Your task to perform on an android device: uninstall "Pandora - Music & Podcasts" Image 0: 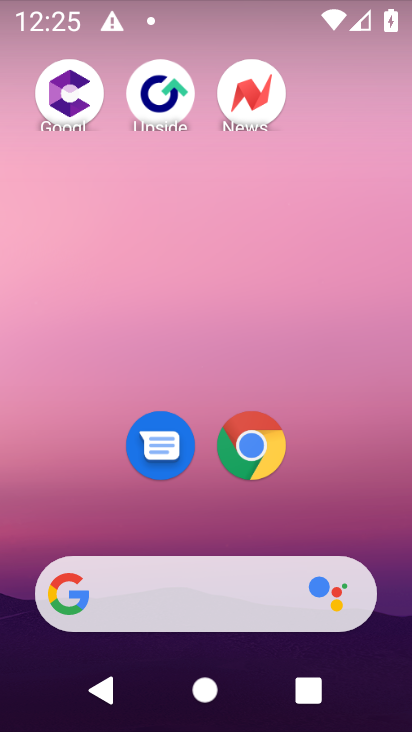
Step 0: drag from (386, 498) to (358, 166)
Your task to perform on an android device: uninstall "Pandora - Music & Podcasts" Image 1: 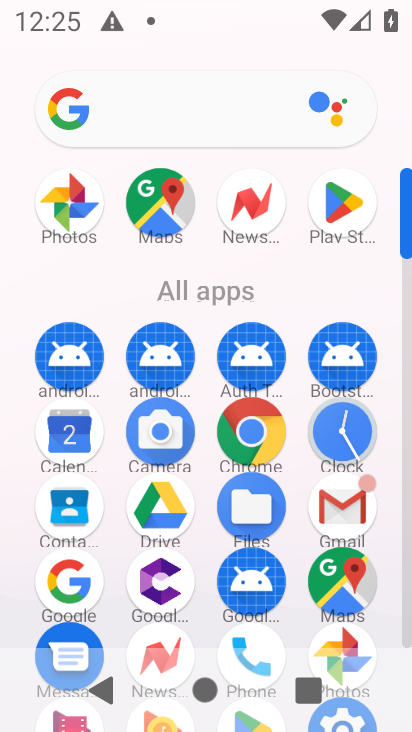
Step 1: click (324, 227)
Your task to perform on an android device: uninstall "Pandora - Music & Podcasts" Image 2: 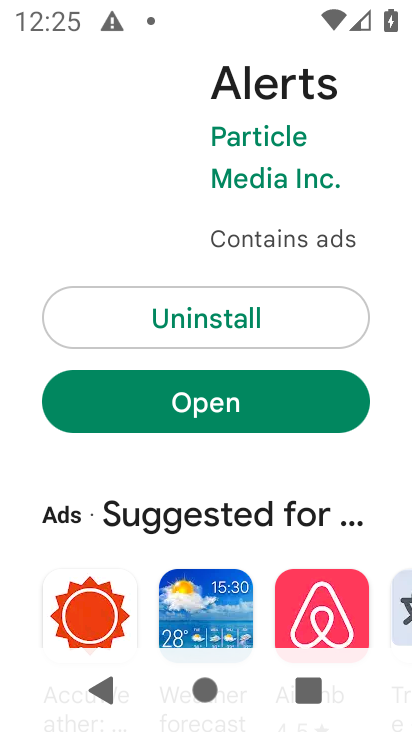
Step 2: drag from (356, 142) to (351, 668)
Your task to perform on an android device: uninstall "Pandora - Music & Podcasts" Image 3: 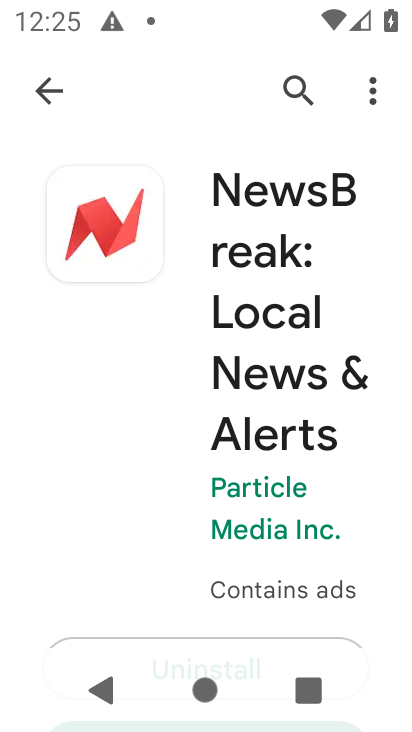
Step 3: click (295, 77)
Your task to perform on an android device: uninstall "Pandora - Music & Podcasts" Image 4: 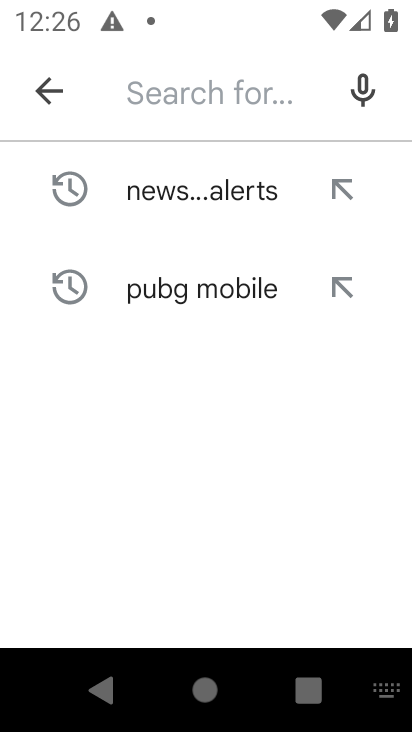
Step 4: click (191, 109)
Your task to perform on an android device: uninstall "Pandora - Music & Podcasts" Image 5: 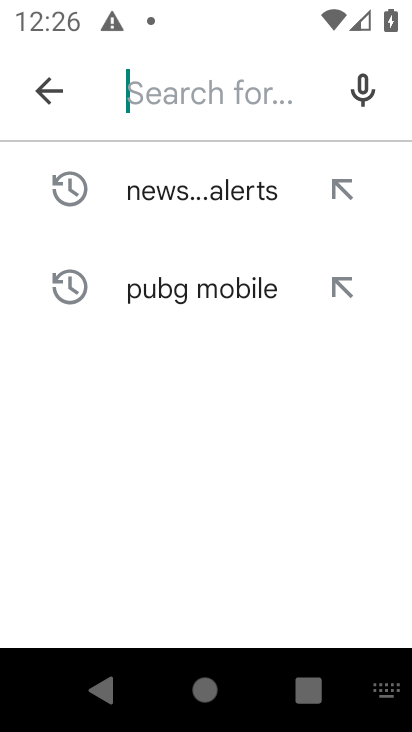
Step 5: type "pandora"
Your task to perform on an android device: uninstall "Pandora - Music & Podcasts" Image 6: 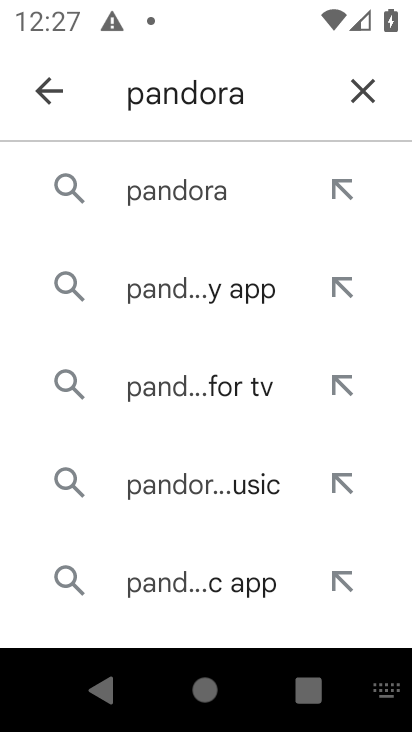
Step 6: click (257, 188)
Your task to perform on an android device: uninstall "Pandora - Music & Podcasts" Image 7: 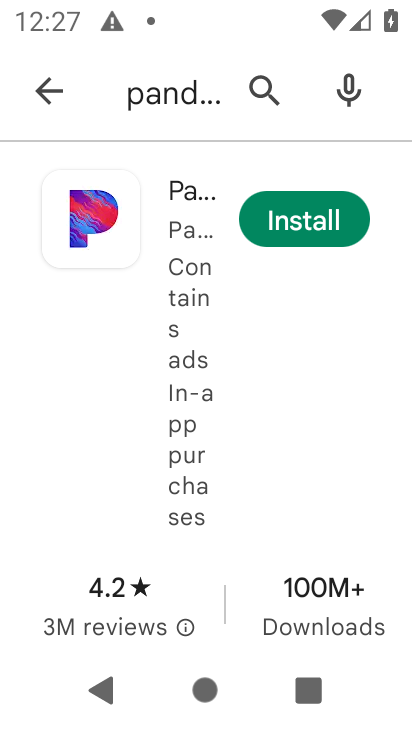
Step 7: task complete